Your task to perform on an android device: check storage Image 0: 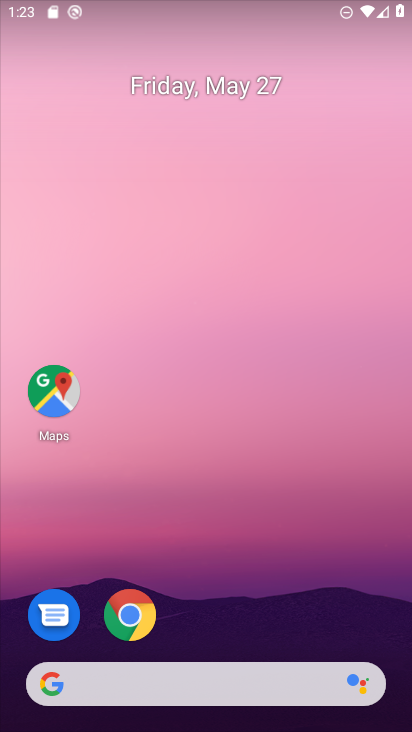
Step 0: drag from (324, 624) to (305, 147)
Your task to perform on an android device: check storage Image 1: 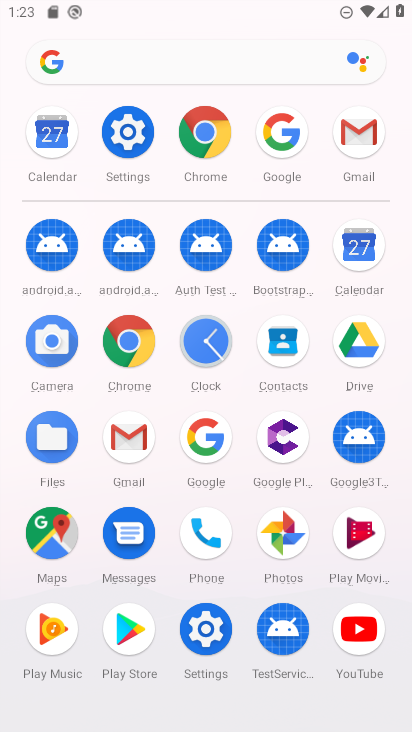
Step 1: click (142, 154)
Your task to perform on an android device: check storage Image 2: 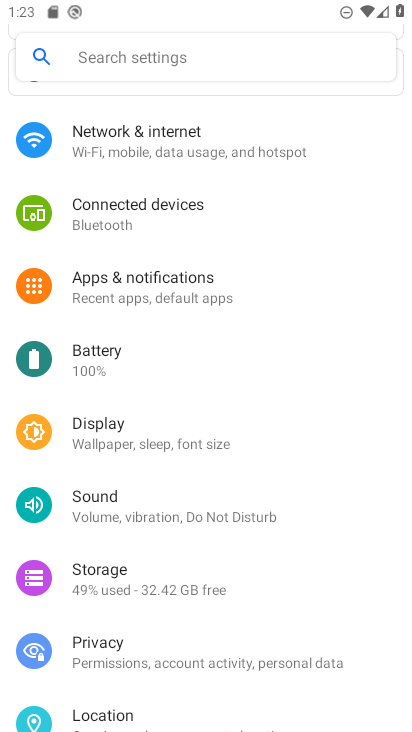
Step 2: click (210, 595)
Your task to perform on an android device: check storage Image 3: 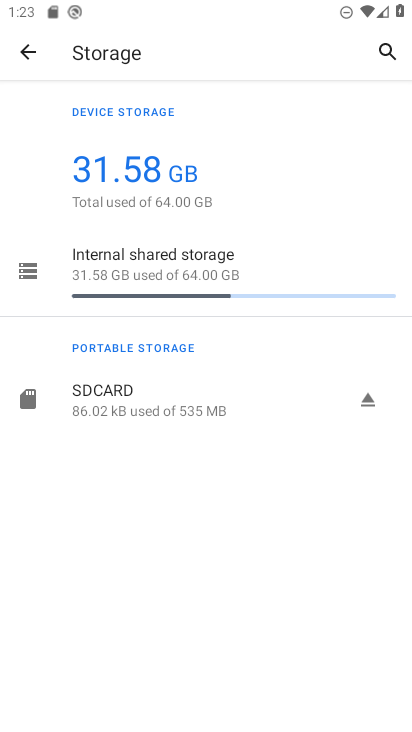
Step 3: click (180, 306)
Your task to perform on an android device: check storage Image 4: 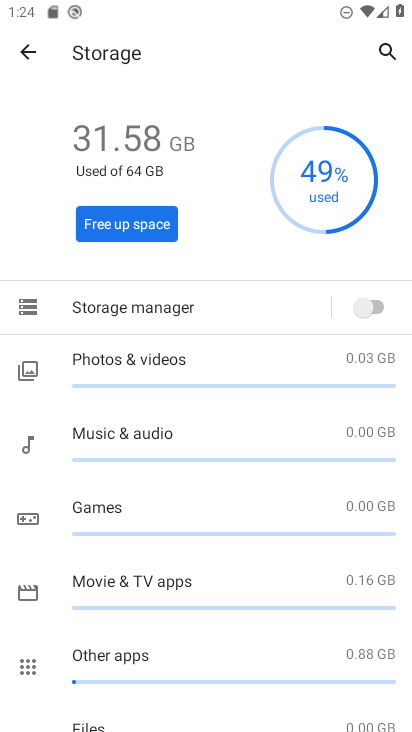
Step 4: task complete